Your task to perform on an android device: Open the calendar app, open the side menu, and click the "Day" option Image 0: 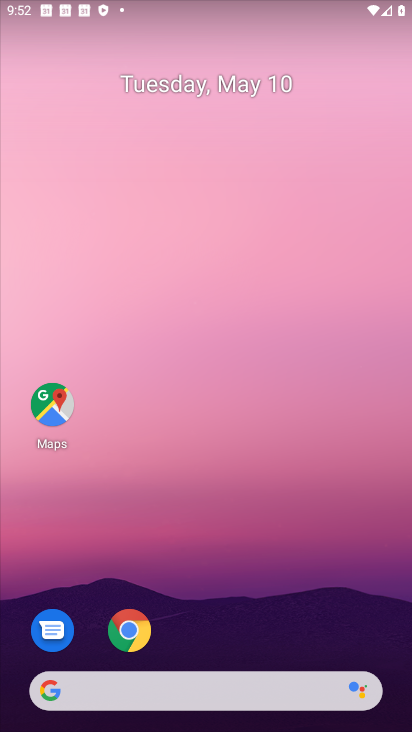
Step 0: drag from (139, 731) to (258, 140)
Your task to perform on an android device: Open the calendar app, open the side menu, and click the "Day" option Image 1: 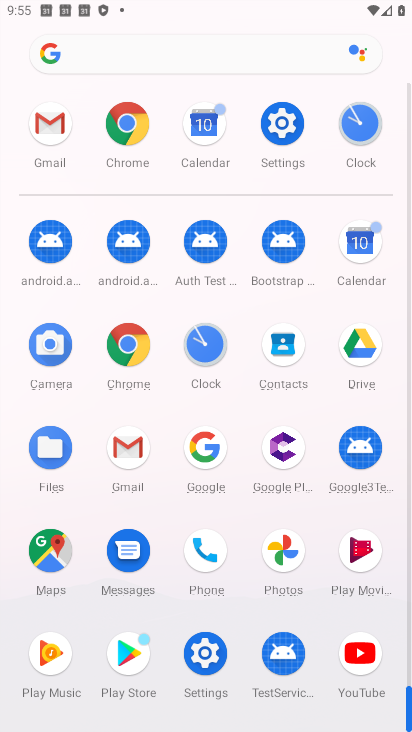
Step 1: click (370, 260)
Your task to perform on an android device: Open the calendar app, open the side menu, and click the "Day" option Image 2: 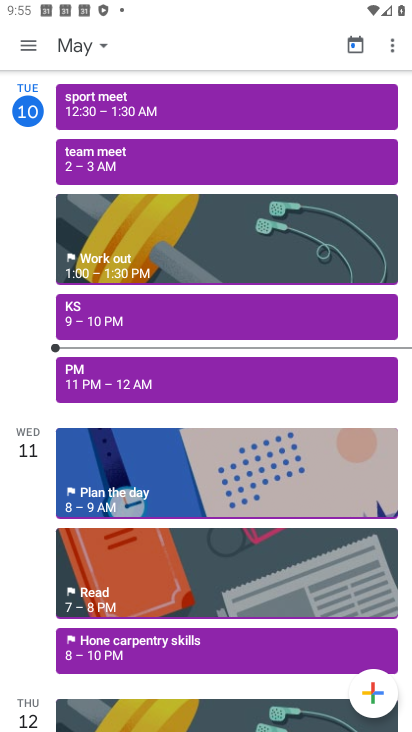
Step 2: click (25, 39)
Your task to perform on an android device: Open the calendar app, open the side menu, and click the "Day" option Image 3: 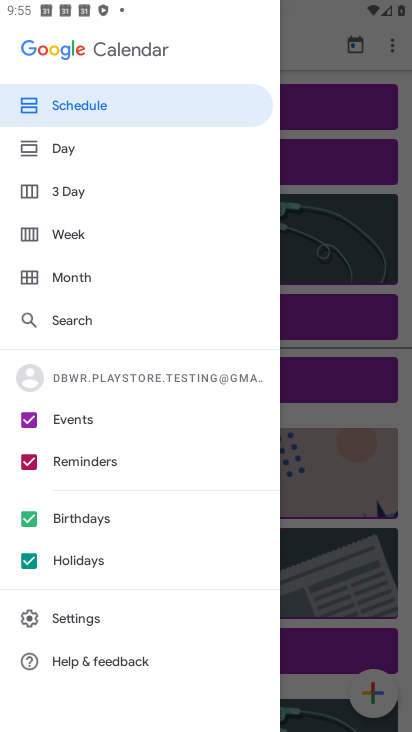
Step 3: click (93, 155)
Your task to perform on an android device: Open the calendar app, open the side menu, and click the "Day" option Image 4: 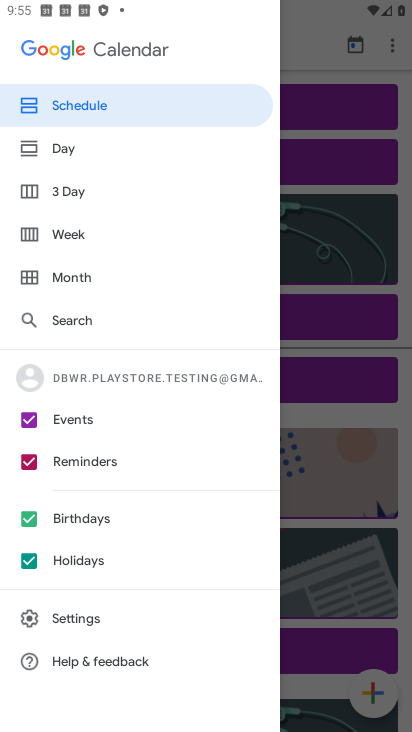
Step 4: click (60, 151)
Your task to perform on an android device: Open the calendar app, open the side menu, and click the "Day" option Image 5: 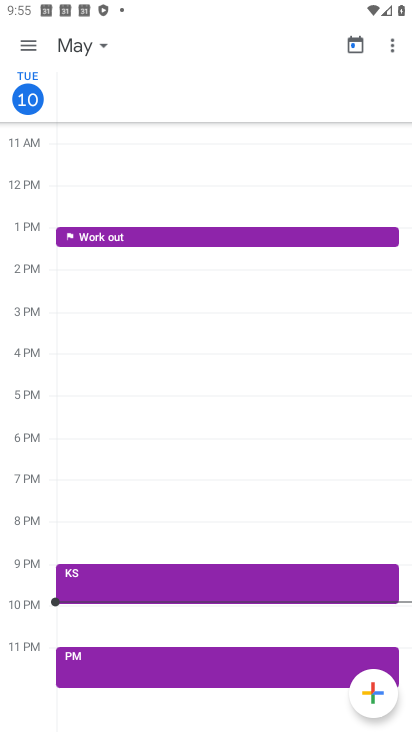
Step 5: task complete